Your task to perform on an android device: turn on wifi Image 0: 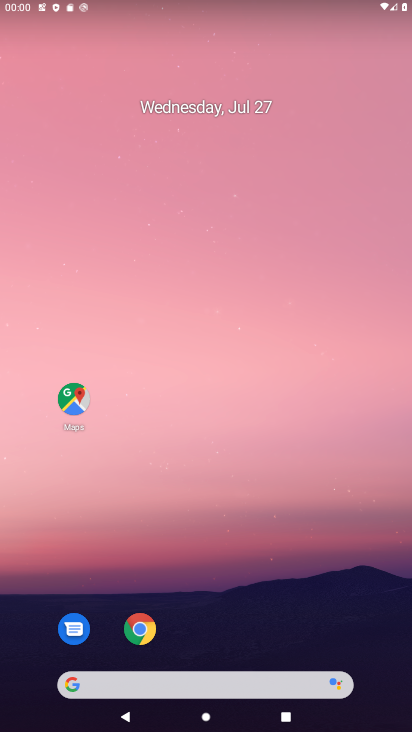
Step 0: drag from (239, 727) to (240, 65)
Your task to perform on an android device: turn on wifi Image 1: 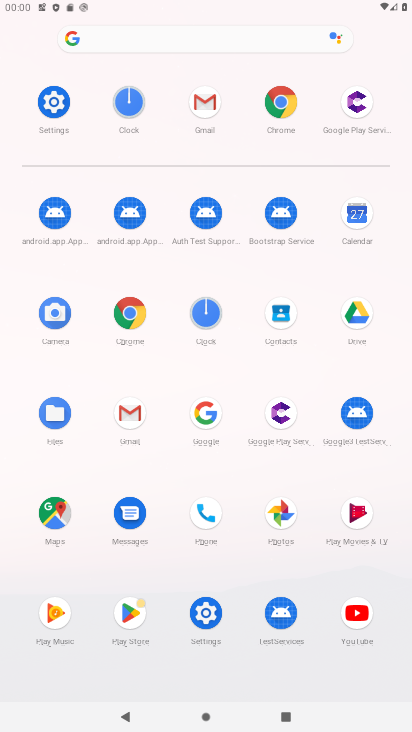
Step 1: click (46, 92)
Your task to perform on an android device: turn on wifi Image 2: 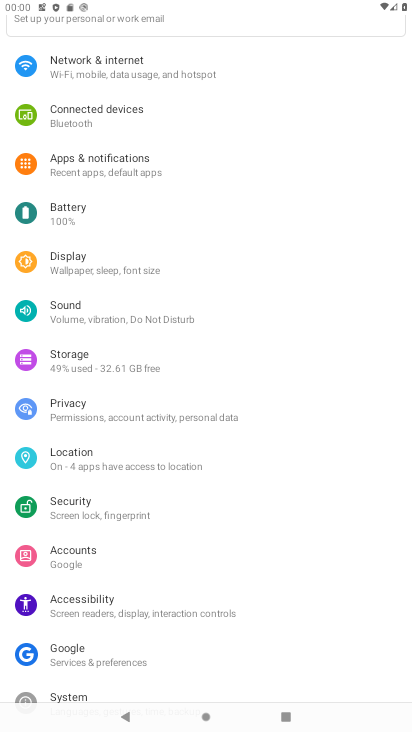
Step 2: click (83, 67)
Your task to perform on an android device: turn on wifi Image 3: 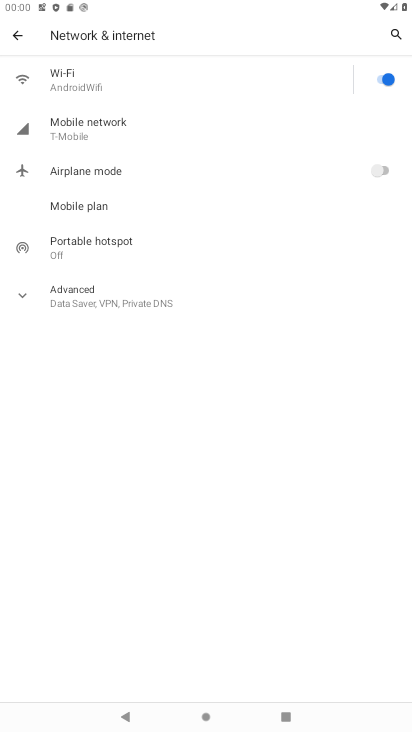
Step 3: task complete